Your task to perform on an android device: see sites visited before in the chrome app Image 0: 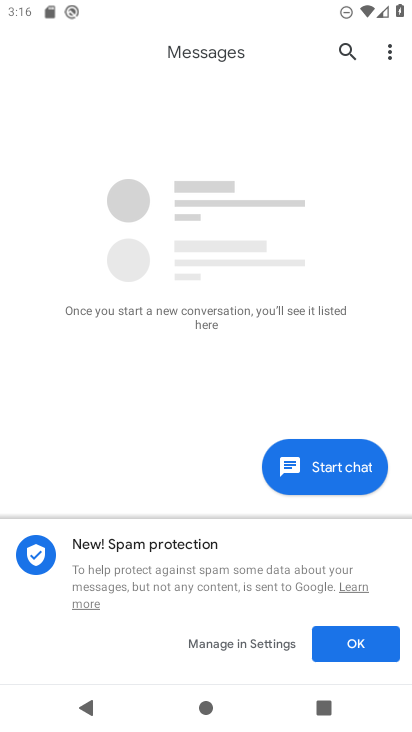
Step 0: press home button
Your task to perform on an android device: see sites visited before in the chrome app Image 1: 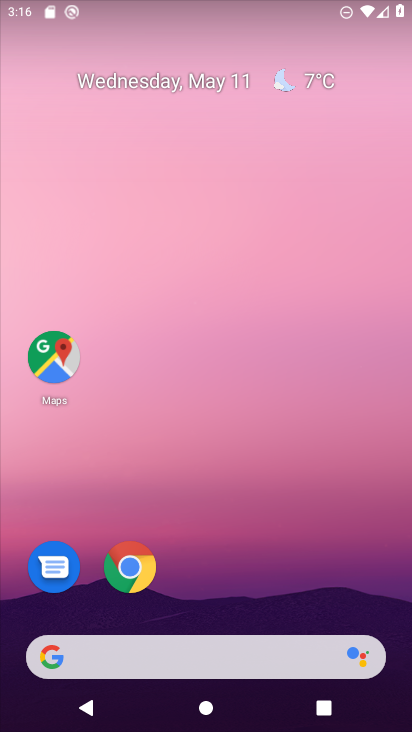
Step 1: click (135, 577)
Your task to perform on an android device: see sites visited before in the chrome app Image 2: 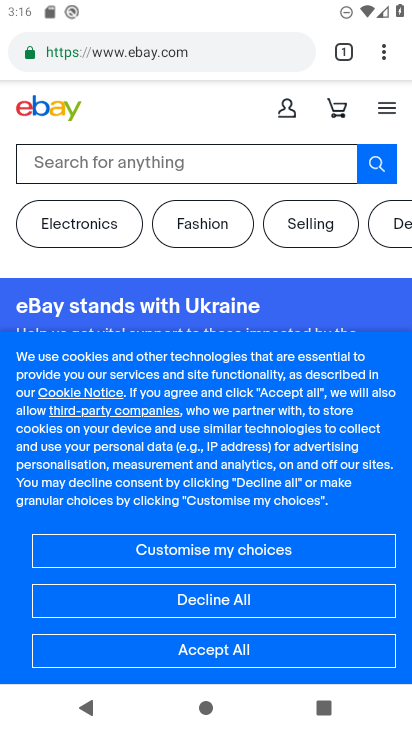
Step 2: click (382, 58)
Your task to perform on an android device: see sites visited before in the chrome app Image 3: 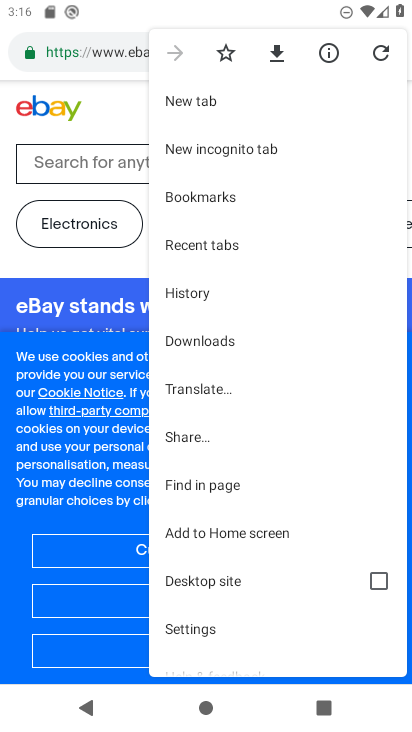
Step 3: click (253, 290)
Your task to perform on an android device: see sites visited before in the chrome app Image 4: 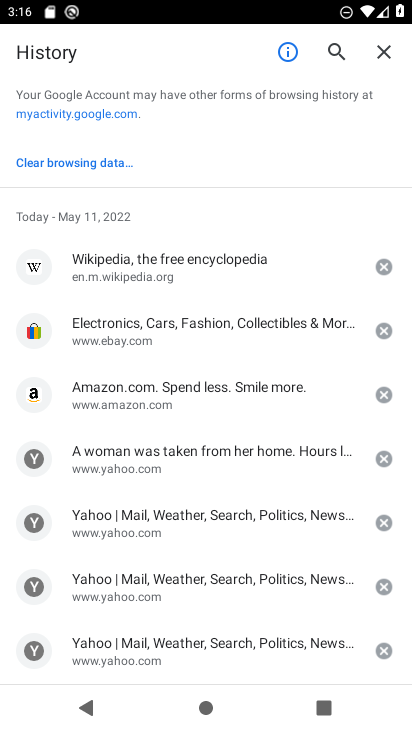
Step 4: task complete